Your task to perform on an android device: open app "Gboard" Image 0: 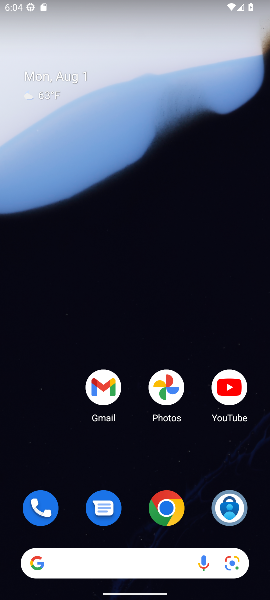
Step 0: drag from (149, 534) to (96, 578)
Your task to perform on an android device: open app "Gboard" Image 1: 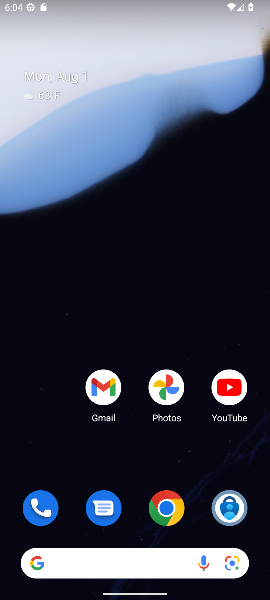
Step 1: drag from (140, 544) to (248, 307)
Your task to perform on an android device: open app "Gboard" Image 2: 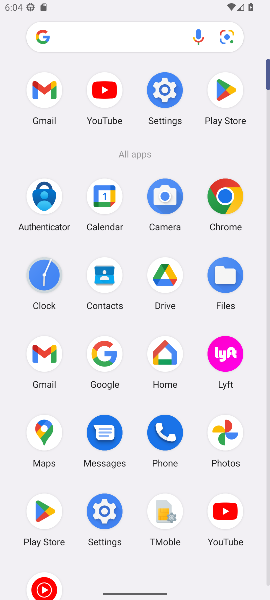
Step 2: click (45, 511)
Your task to perform on an android device: open app "Gboard" Image 3: 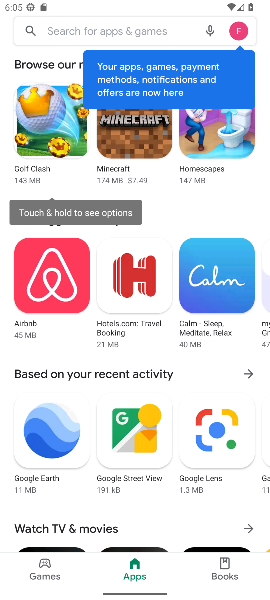
Step 3: click (32, 38)
Your task to perform on an android device: open app "Gboard" Image 4: 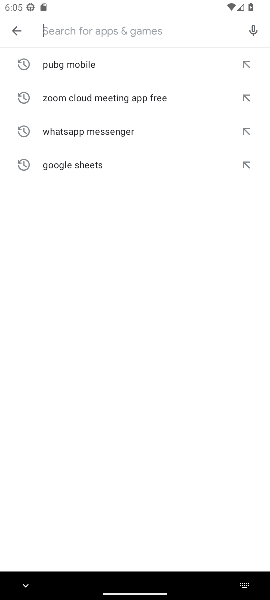
Step 4: type "Gboard"
Your task to perform on an android device: open app "Gboard" Image 5: 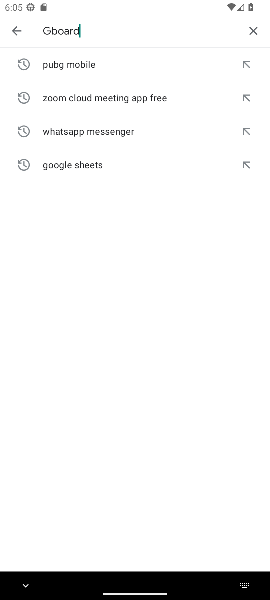
Step 5: type ""
Your task to perform on an android device: open app "Gboard" Image 6: 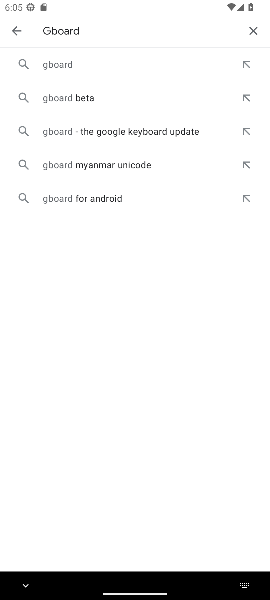
Step 6: click (53, 72)
Your task to perform on an android device: open app "Gboard" Image 7: 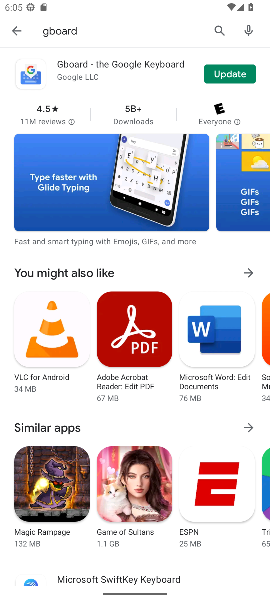
Step 7: click (112, 67)
Your task to perform on an android device: open app "Gboard" Image 8: 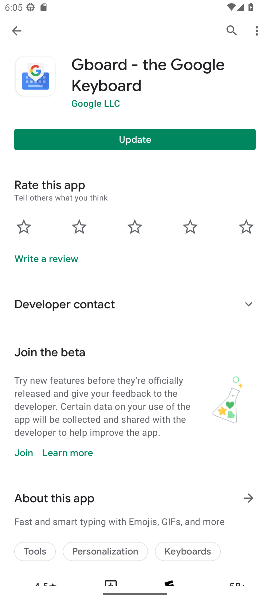
Step 8: task complete